Your task to perform on an android device: turn pop-ups off in chrome Image 0: 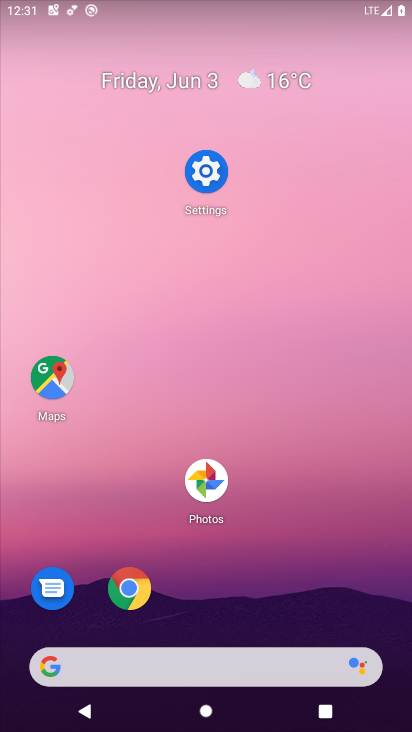
Step 0: drag from (248, 576) to (296, 146)
Your task to perform on an android device: turn pop-ups off in chrome Image 1: 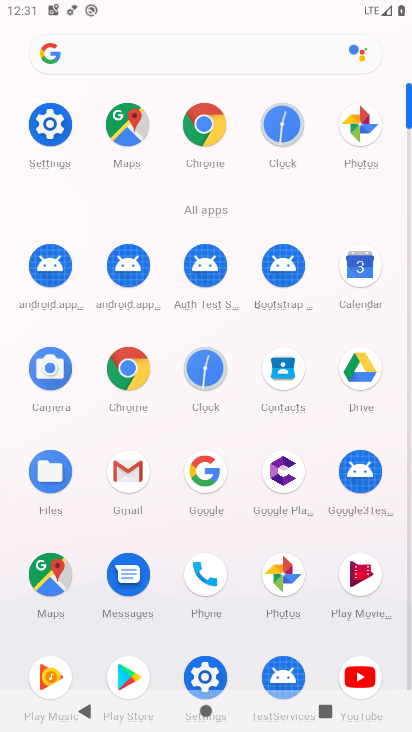
Step 1: click (122, 371)
Your task to perform on an android device: turn pop-ups off in chrome Image 2: 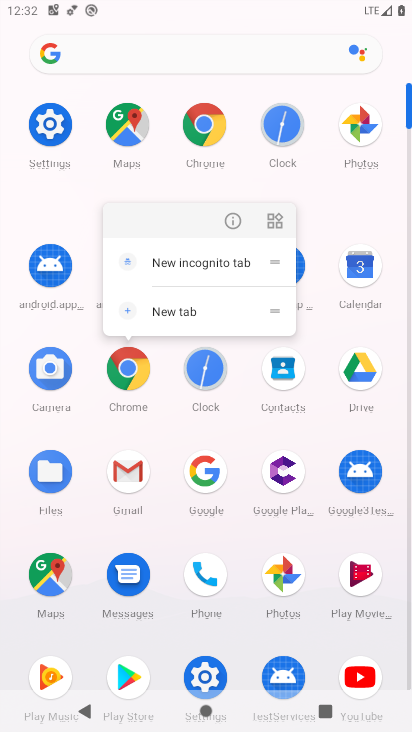
Step 2: click (221, 219)
Your task to perform on an android device: turn pop-ups off in chrome Image 3: 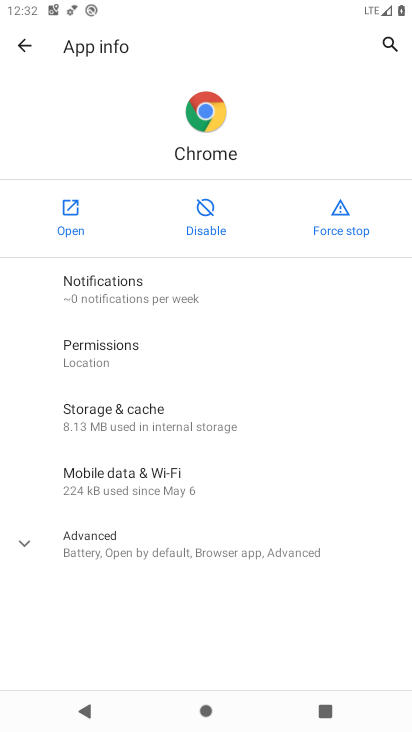
Step 3: click (65, 222)
Your task to perform on an android device: turn pop-ups off in chrome Image 4: 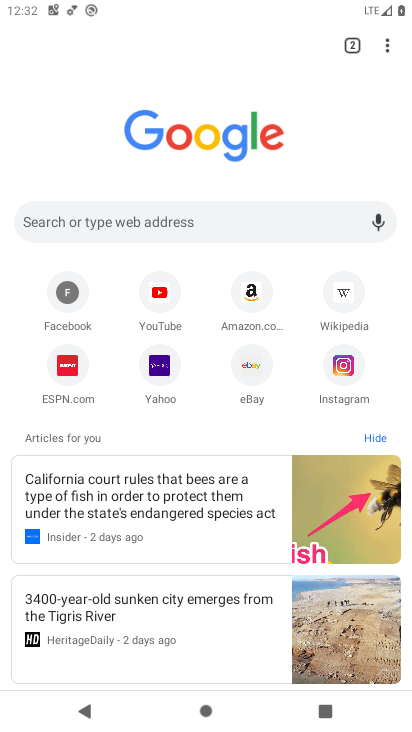
Step 4: click (387, 50)
Your task to perform on an android device: turn pop-ups off in chrome Image 5: 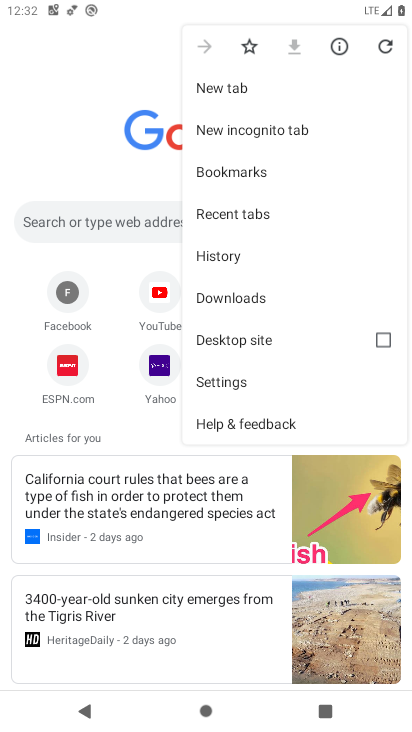
Step 5: click (238, 389)
Your task to perform on an android device: turn pop-ups off in chrome Image 6: 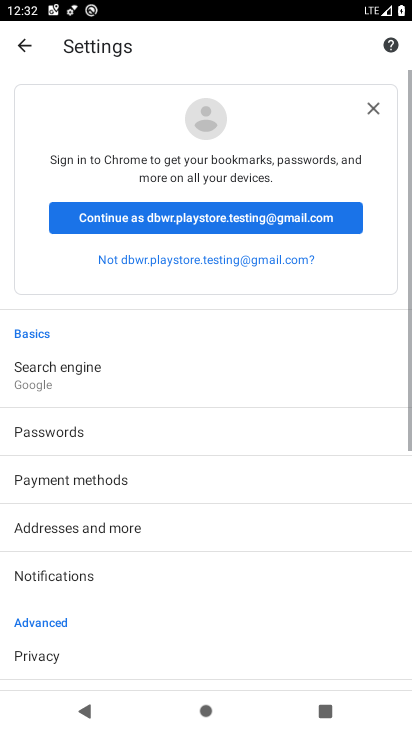
Step 6: drag from (185, 525) to (253, 84)
Your task to perform on an android device: turn pop-ups off in chrome Image 7: 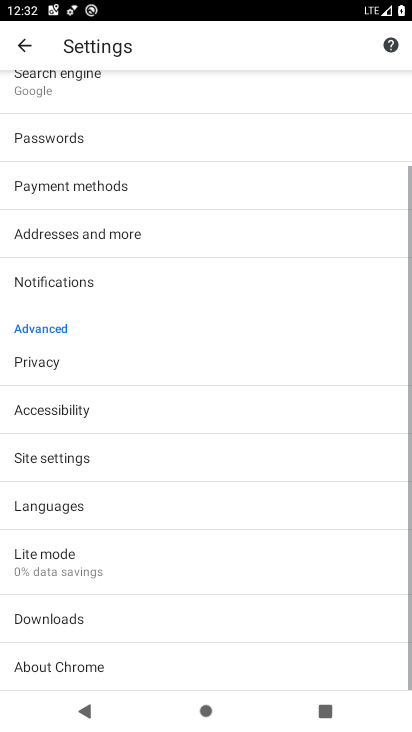
Step 7: click (108, 455)
Your task to perform on an android device: turn pop-ups off in chrome Image 8: 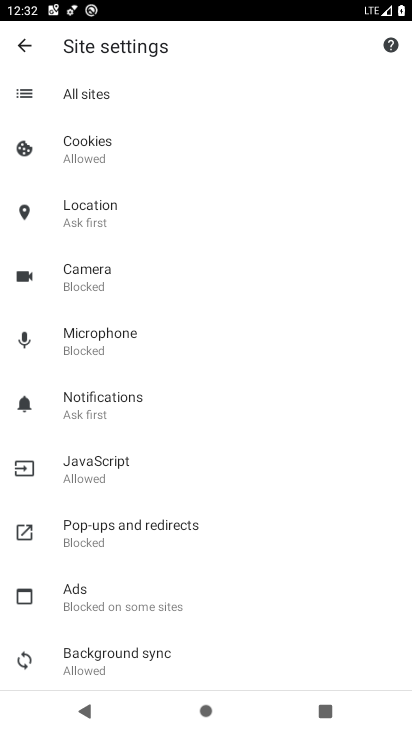
Step 8: click (134, 545)
Your task to perform on an android device: turn pop-ups off in chrome Image 9: 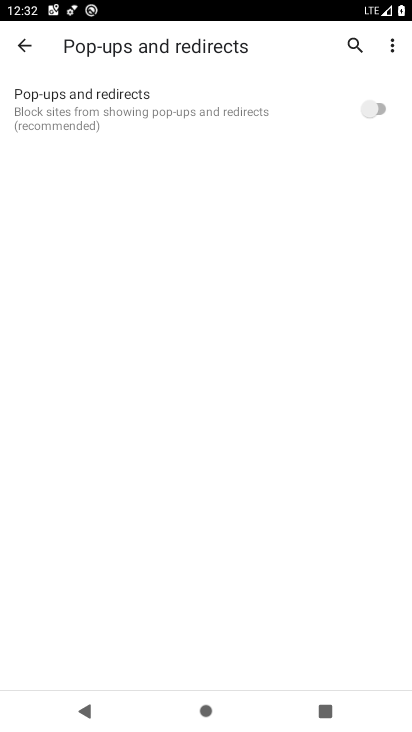
Step 9: task complete